Your task to perform on an android device: Clear the shopping cart on costco. Add alienware area 51 to the cart on costco Image 0: 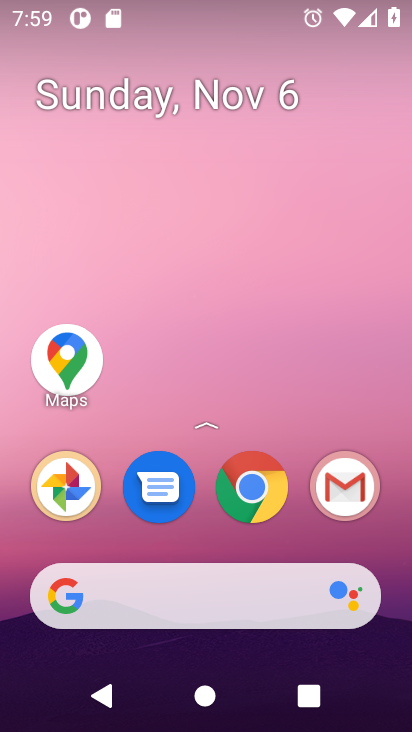
Step 0: click (240, 469)
Your task to perform on an android device: Clear the shopping cart on costco. Add alienware area 51 to the cart on costco Image 1: 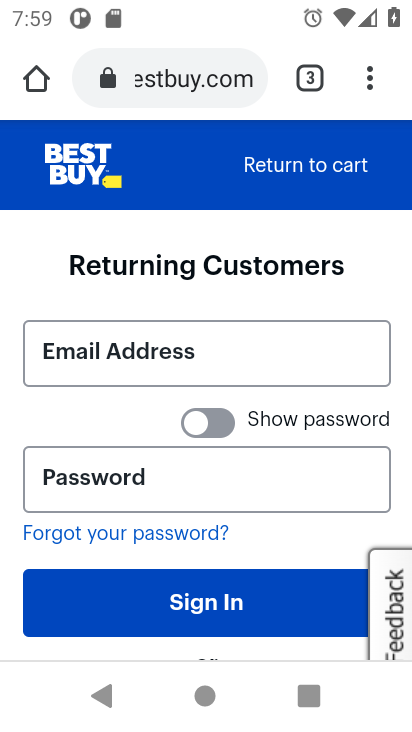
Step 1: click (195, 75)
Your task to perform on an android device: Clear the shopping cart on costco. Add alienware area 51 to the cart on costco Image 2: 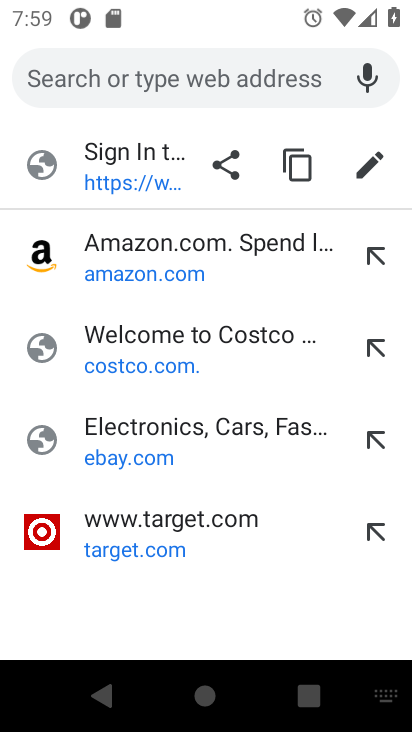
Step 2: click (134, 351)
Your task to perform on an android device: Clear the shopping cart on costco. Add alienware area 51 to the cart on costco Image 3: 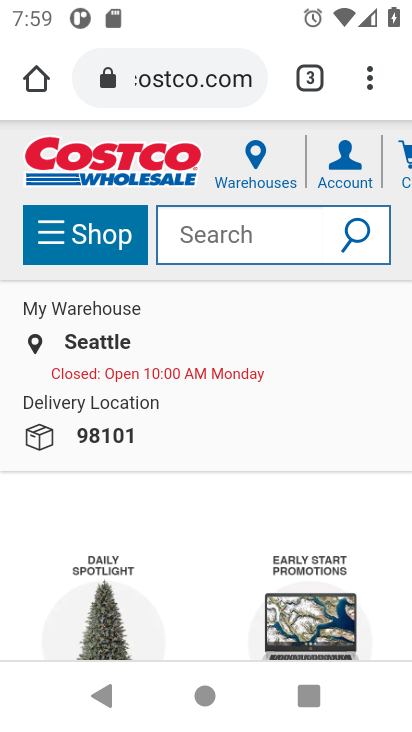
Step 3: click (405, 157)
Your task to perform on an android device: Clear the shopping cart on costco. Add alienware area 51 to the cart on costco Image 4: 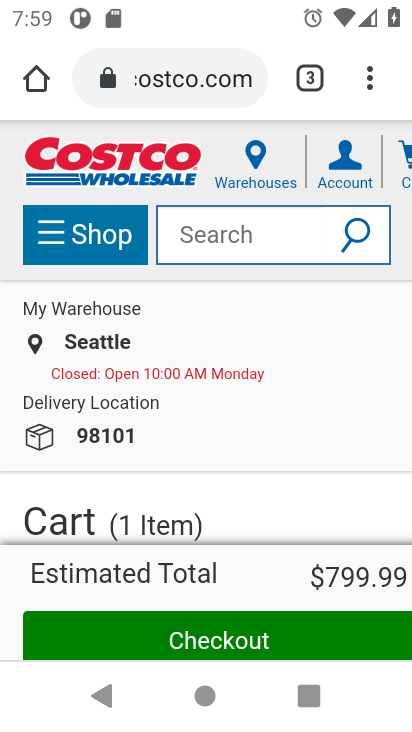
Step 4: drag from (186, 527) to (248, 224)
Your task to perform on an android device: Clear the shopping cart on costco. Add alienware area 51 to the cart on costco Image 5: 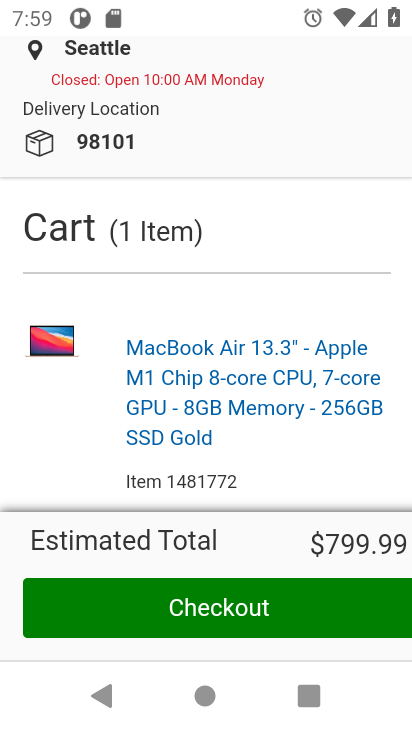
Step 5: drag from (267, 464) to (299, 127)
Your task to perform on an android device: Clear the shopping cart on costco. Add alienware area 51 to the cart on costco Image 6: 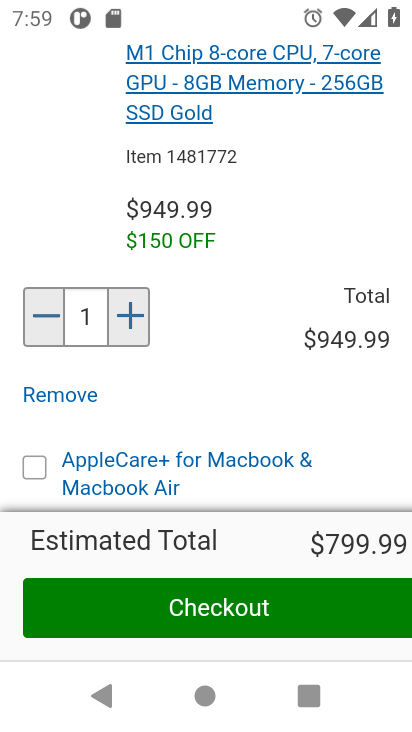
Step 6: drag from (298, 475) to (304, 113)
Your task to perform on an android device: Clear the shopping cart on costco. Add alienware area 51 to the cart on costco Image 7: 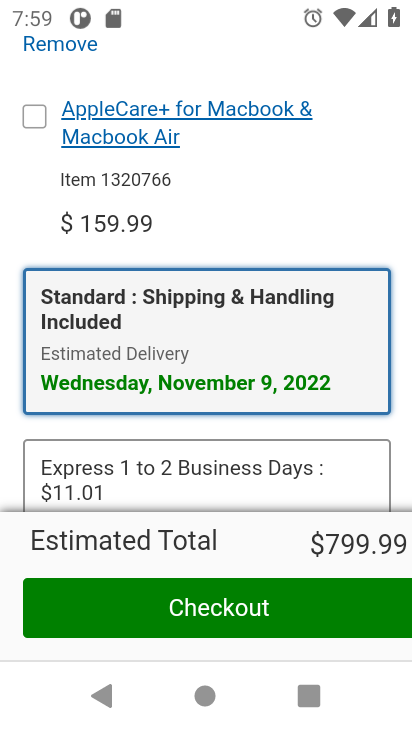
Step 7: drag from (293, 78) to (268, 406)
Your task to perform on an android device: Clear the shopping cart on costco. Add alienware area 51 to the cart on costco Image 8: 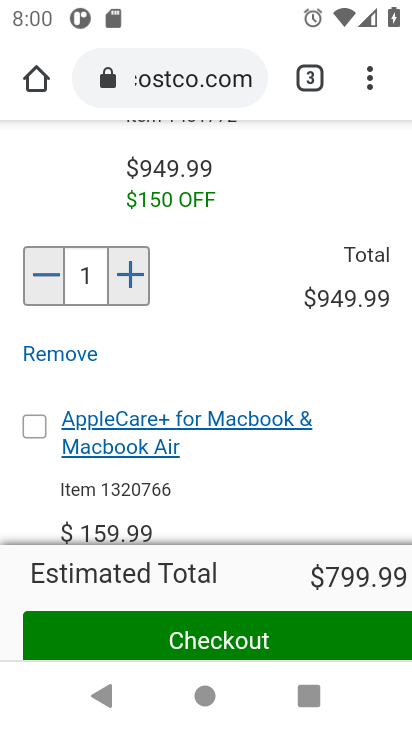
Step 8: click (59, 354)
Your task to perform on an android device: Clear the shopping cart on costco. Add alienware area 51 to the cart on costco Image 9: 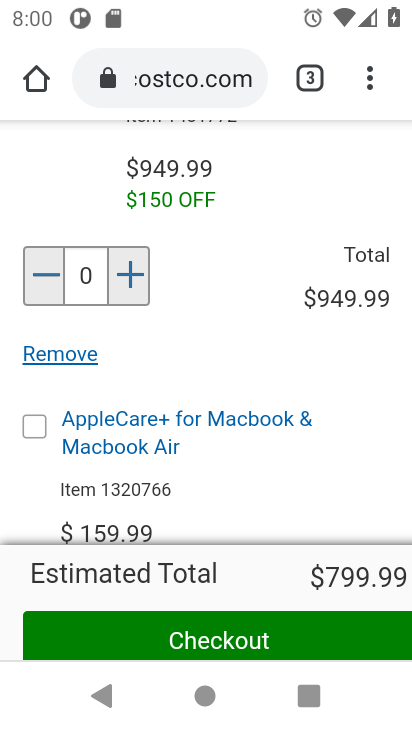
Step 9: press back button
Your task to perform on an android device: Clear the shopping cart on costco. Add alienware area 51 to the cart on costco Image 10: 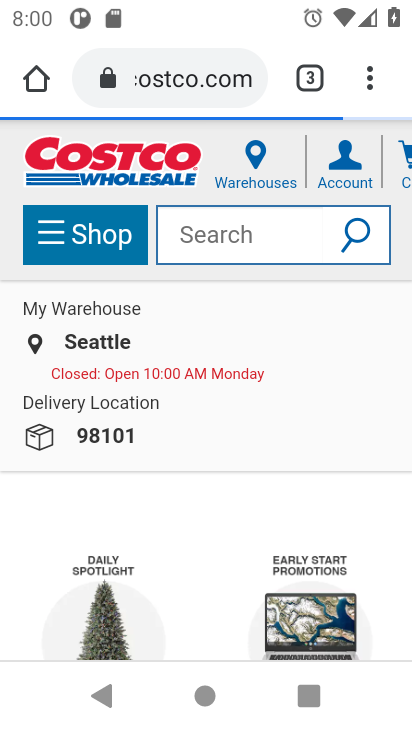
Step 10: click (273, 236)
Your task to perform on an android device: Clear the shopping cart on costco. Add alienware area 51 to the cart on costco Image 11: 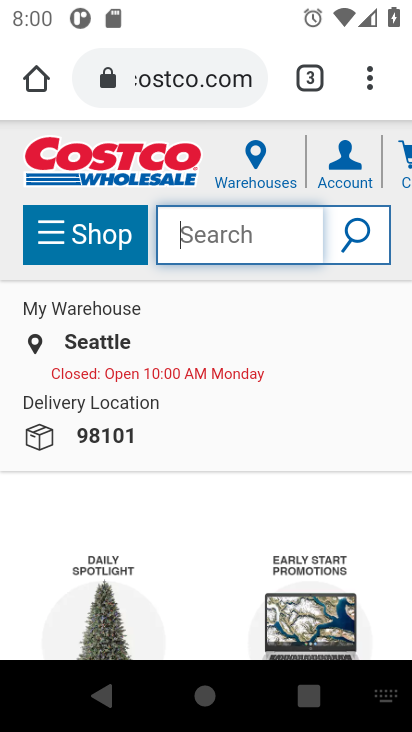
Step 11: type " alienware area 51"
Your task to perform on an android device: Clear the shopping cart on costco. Add alienware area 51 to the cart on costco Image 12: 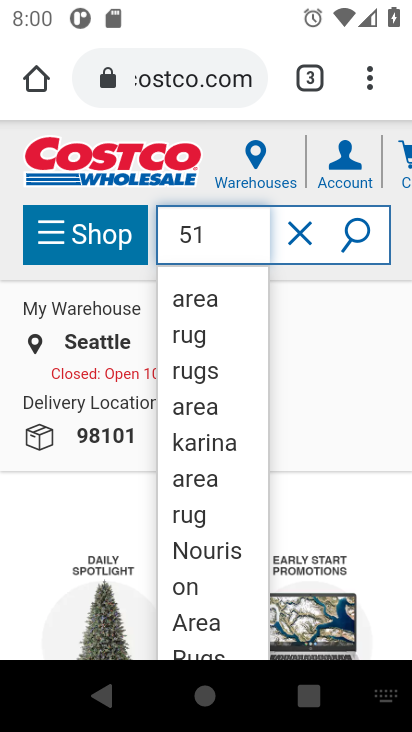
Step 12: click (363, 241)
Your task to perform on an android device: Clear the shopping cart on costco. Add alienware area 51 to the cart on costco Image 13: 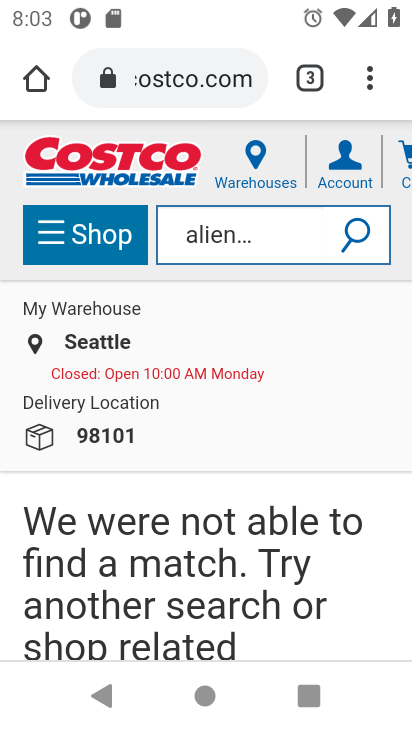
Step 13: task complete